Your task to perform on an android device: toggle translation in the chrome app Image 0: 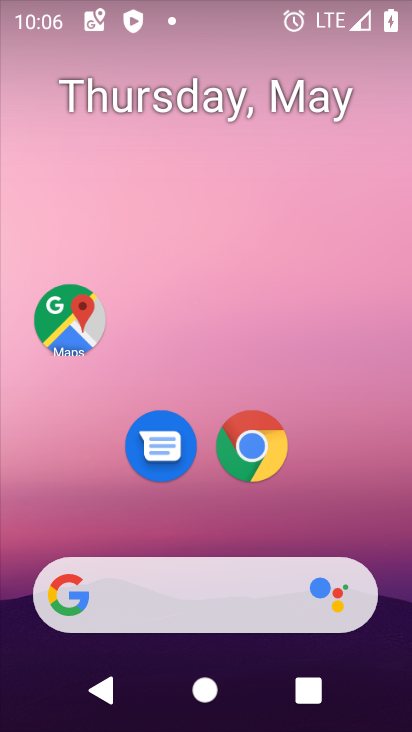
Step 0: click (243, 434)
Your task to perform on an android device: toggle translation in the chrome app Image 1: 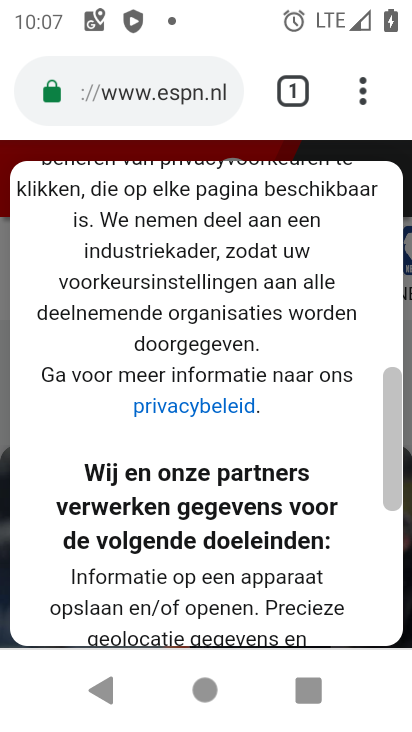
Step 1: click (365, 100)
Your task to perform on an android device: toggle translation in the chrome app Image 2: 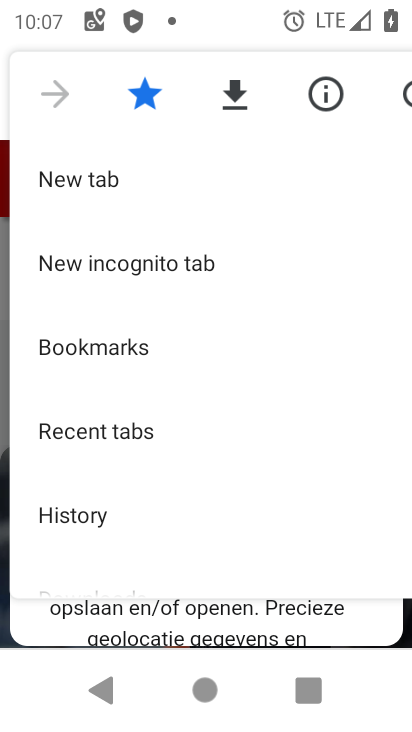
Step 2: drag from (79, 517) to (136, 174)
Your task to perform on an android device: toggle translation in the chrome app Image 3: 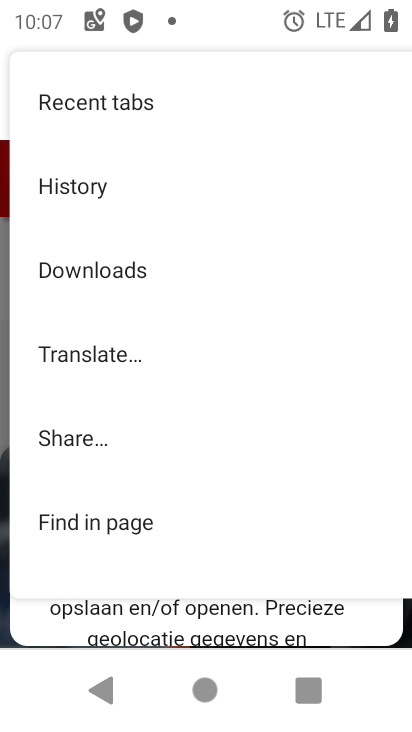
Step 3: drag from (142, 548) to (164, 157)
Your task to perform on an android device: toggle translation in the chrome app Image 4: 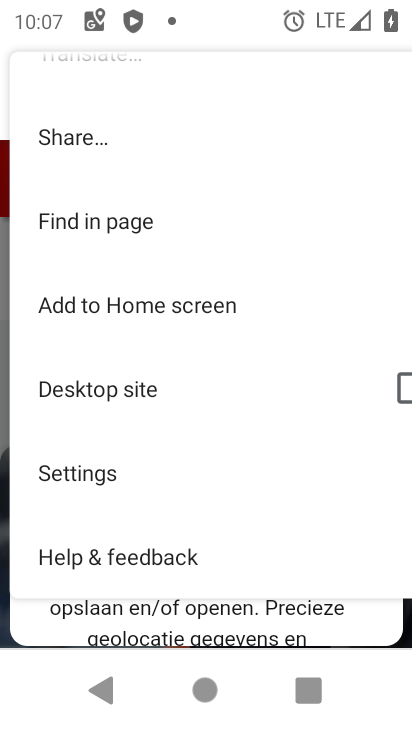
Step 4: click (97, 470)
Your task to perform on an android device: toggle translation in the chrome app Image 5: 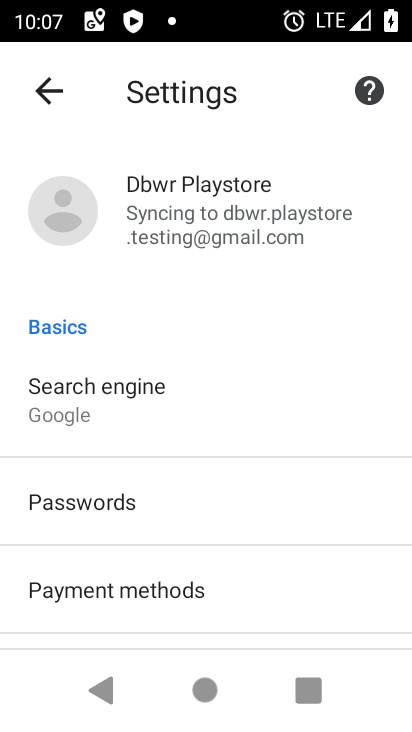
Step 5: drag from (228, 609) to (241, 189)
Your task to perform on an android device: toggle translation in the chrome app Image 6: 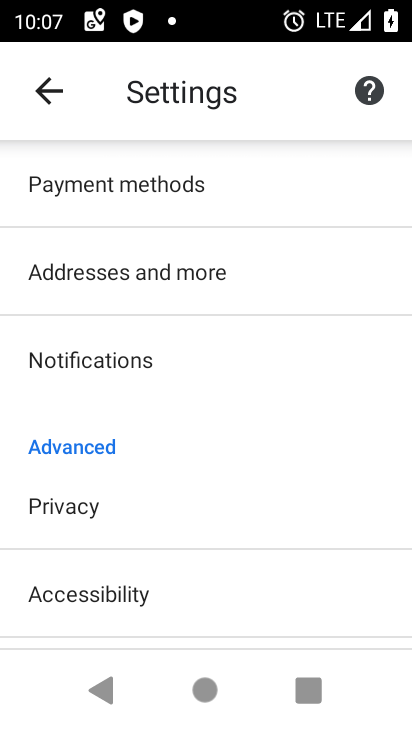
Step 6: drag from (187, 561) to (202, 217)
Your task to perform on an android device: toggle translation in the chrome app Image 7: 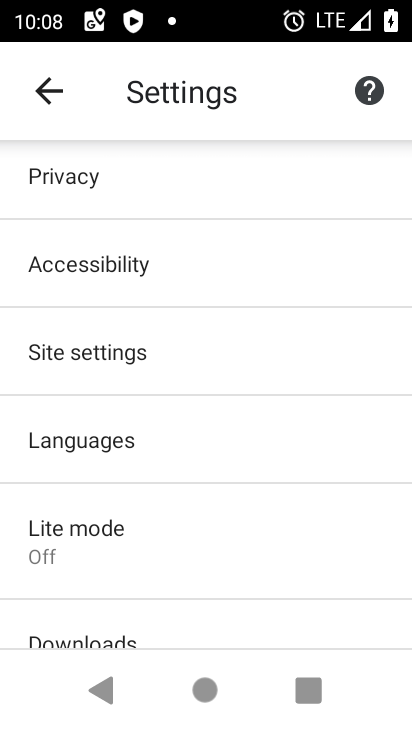
Step 7: drag from (183, 596) to (197, 421)
Your task to perform on an android device: toggle translation in the chrome app Image 8: 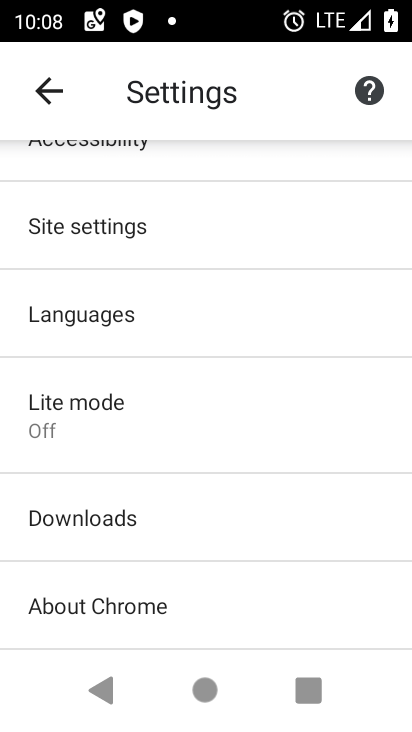
Step 8: click (78, 315)
Your task to perform on an android device: toggle translation in the chrome app Image 9: 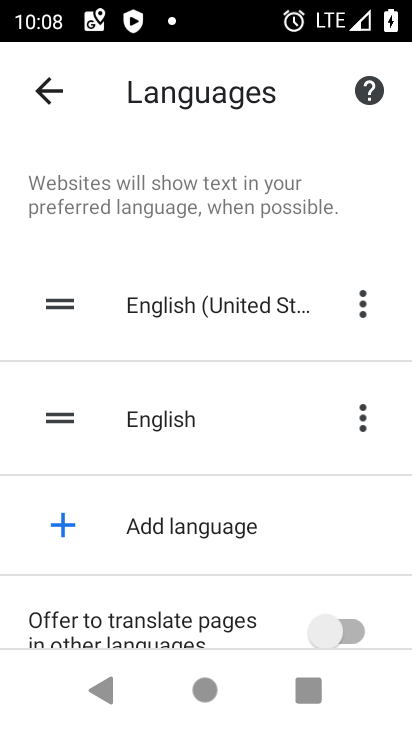
Step 9: click (351, 627)
Your task to perform on an android device: toggle translation in the chrome app Image 10: 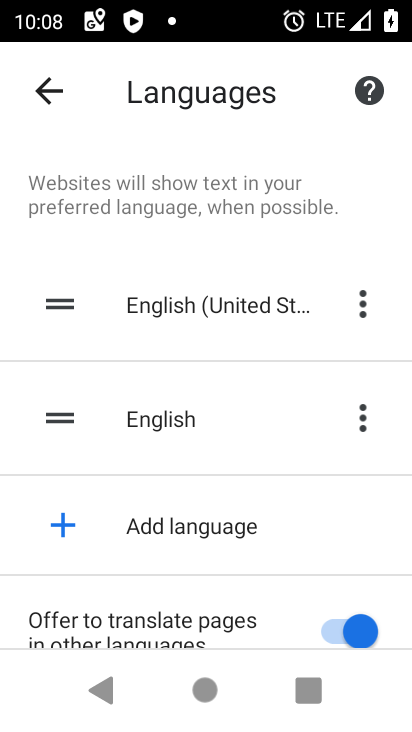
Step 10: task complete